Your task to perform on an android device: Search for razer kraken on newegg, select the first entry, and add it to the cart. Image 0: 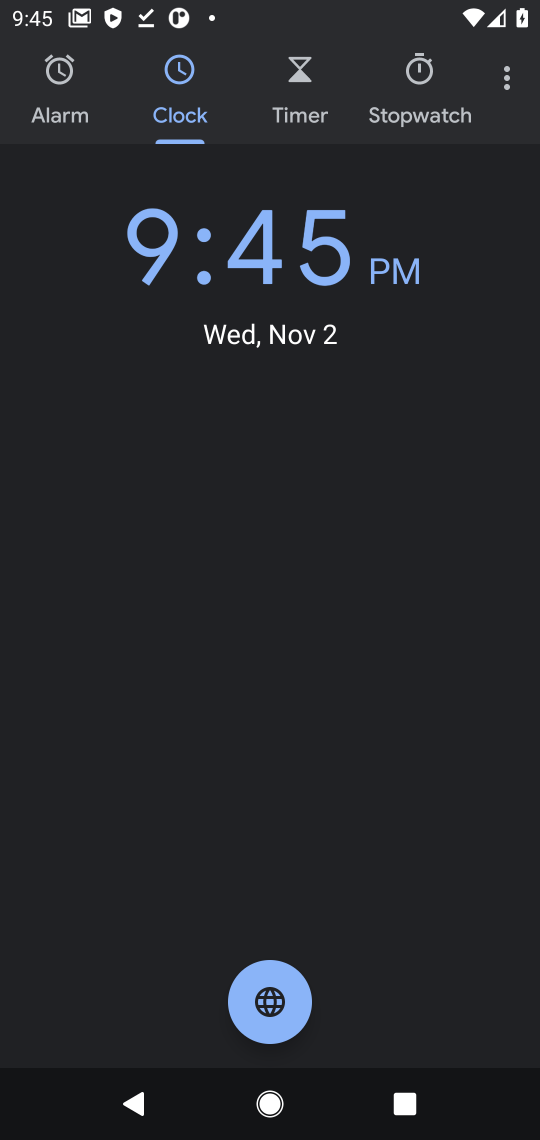
Step 0: press home button
Your task to perform on an android device: Search for razer kraken on newegg, select the first entry, and add it to the cart. Image 1: 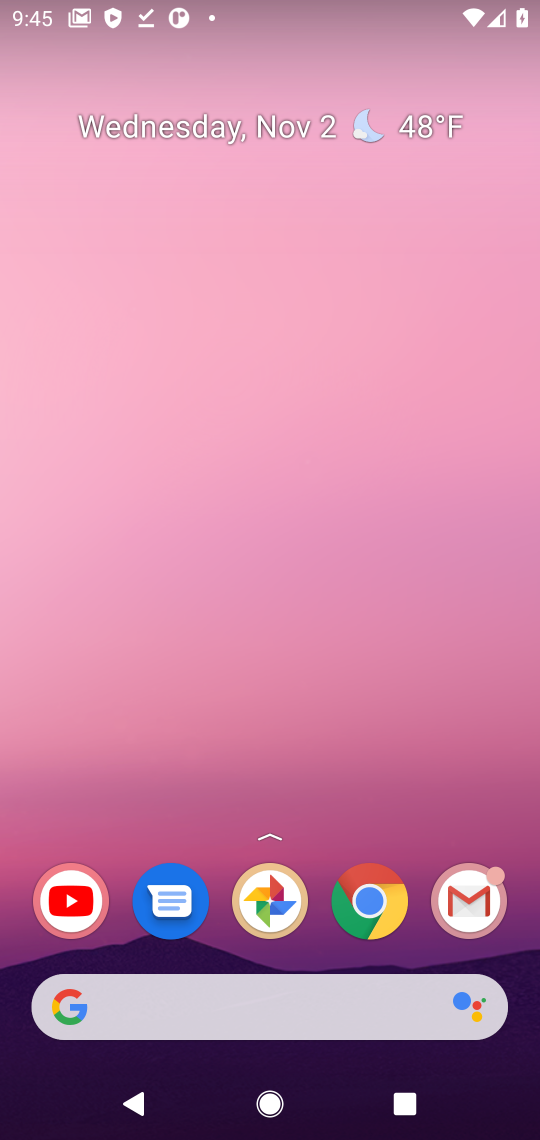
Step 1: click (362, 911)
Your task to perform on an android device: Search for razer kraken on newegg, select the first entry, and add it to the cart. Image 2: 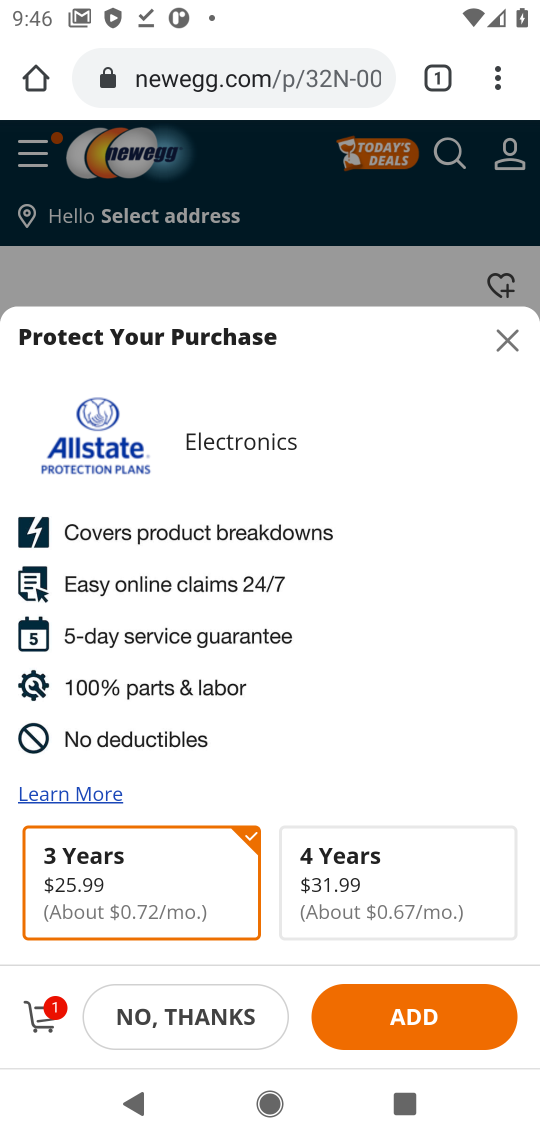
Step 2: click (511, 342)
Your task to perform on an android device: Search for razer kraken on newegg, select the first entry, and add it to the cart. Image 3: 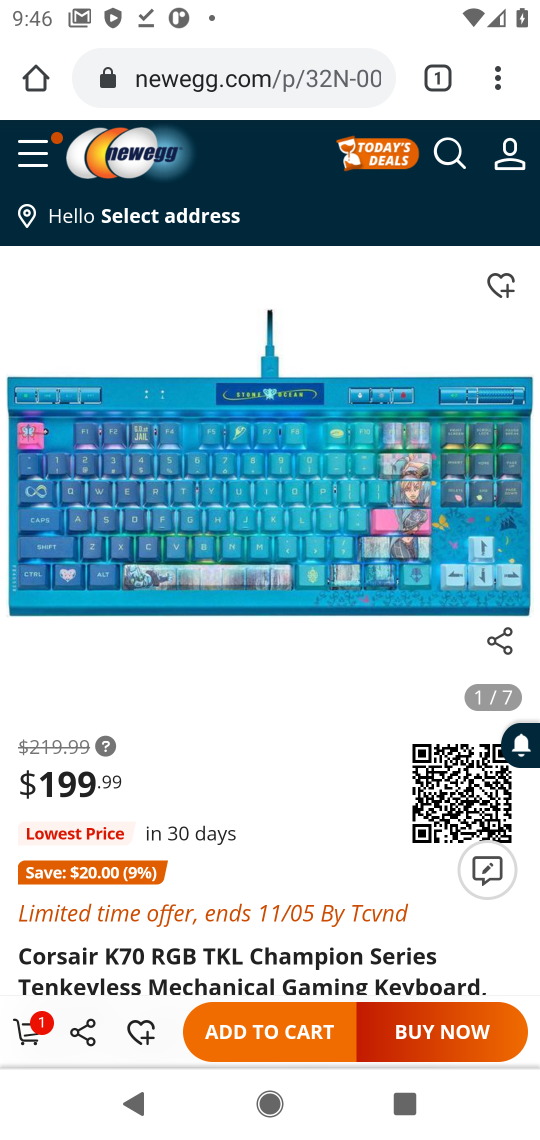
Step 3: click (457, 158)
Your task to perform on an android device: Search for razer kraken on newegg, select the first entry, and add it to the cart. Image 4: 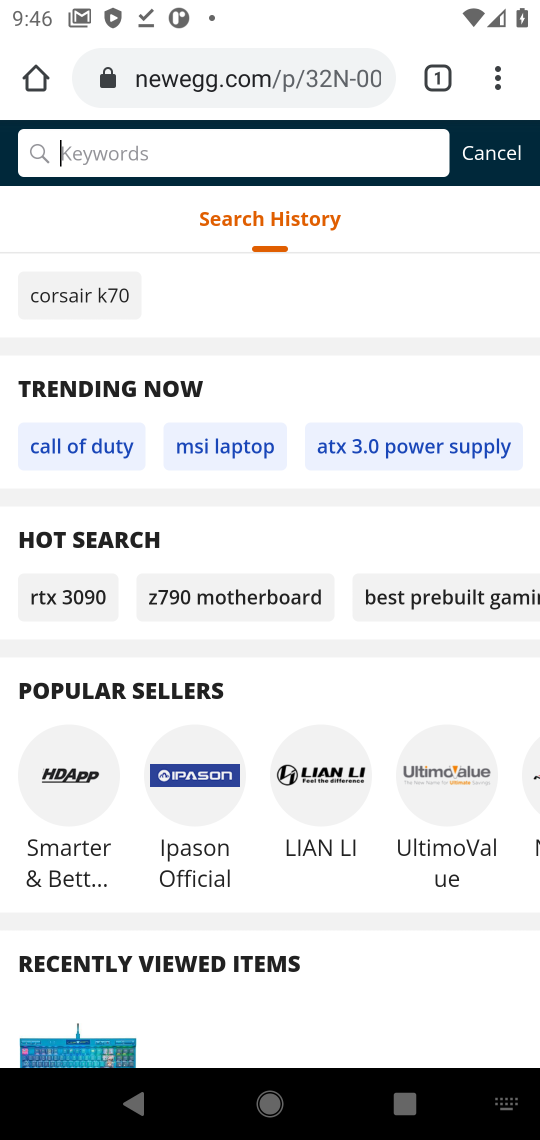
Step 4: type "razer kraken"
Your task to perform on an android device: Search for razer kraken on newegg, select the first entry, and add it to the cart. Image 5: 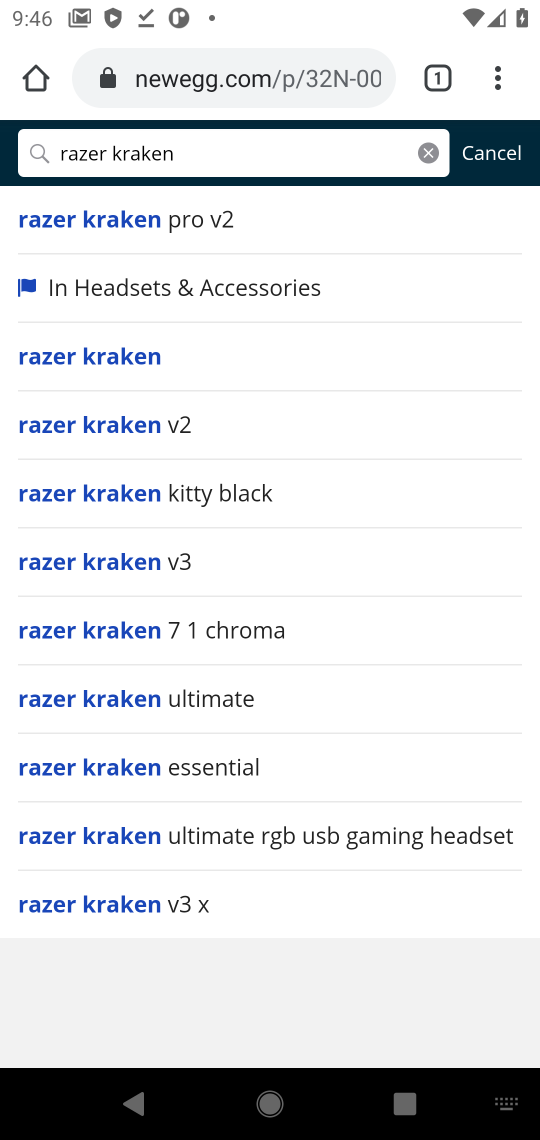
Step 5: press enter
Your task to perform on an android device: Search for razer kraken on newegg, select the first entry, and add it to the cart. Image 6: 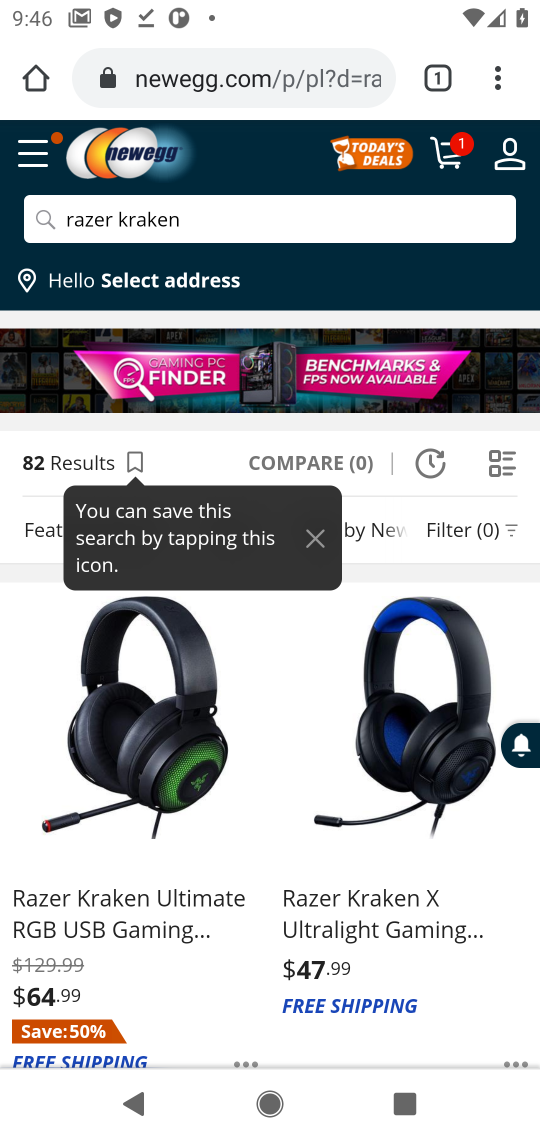
Step 6: click (147, 845)
Your task to perform on an android device: Search for razer kraken on newegg, select the first entry, and add it to the cart. Image 7: 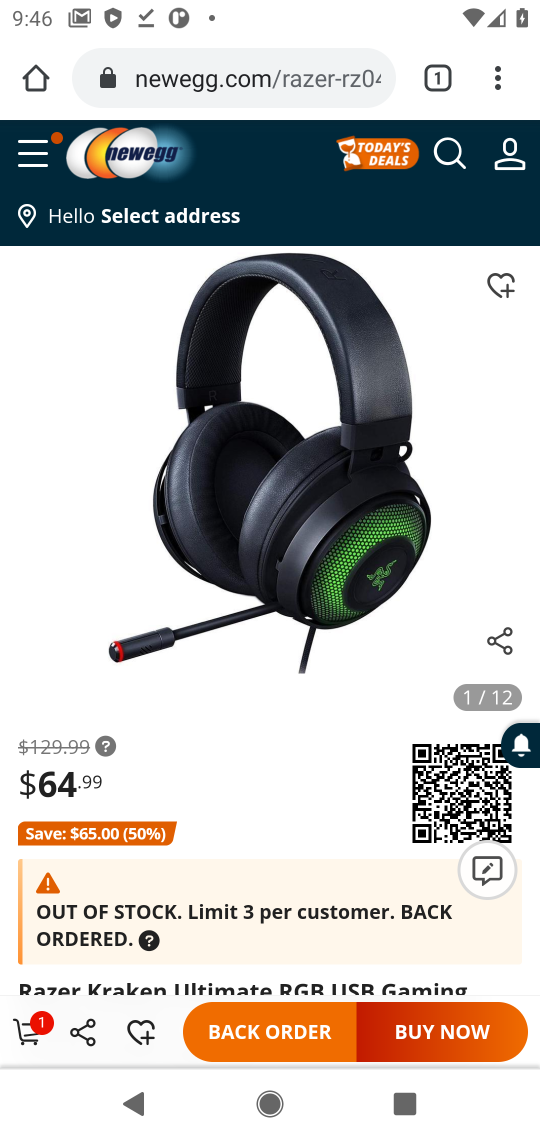
Step 7: click (240, 1029)
Your task to perform on an android device: Search for razer kraken on newegg, select the first entry, and add it to the cart. Image 8: 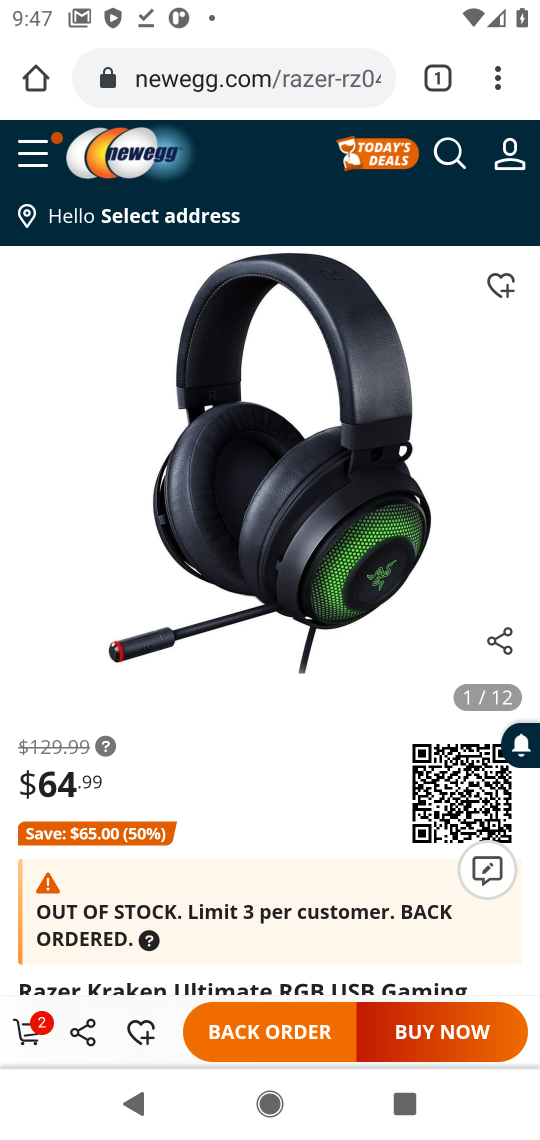
Step 8: task complete